Your task to perform on an android device: uninstall "Google Drive" Image 0: 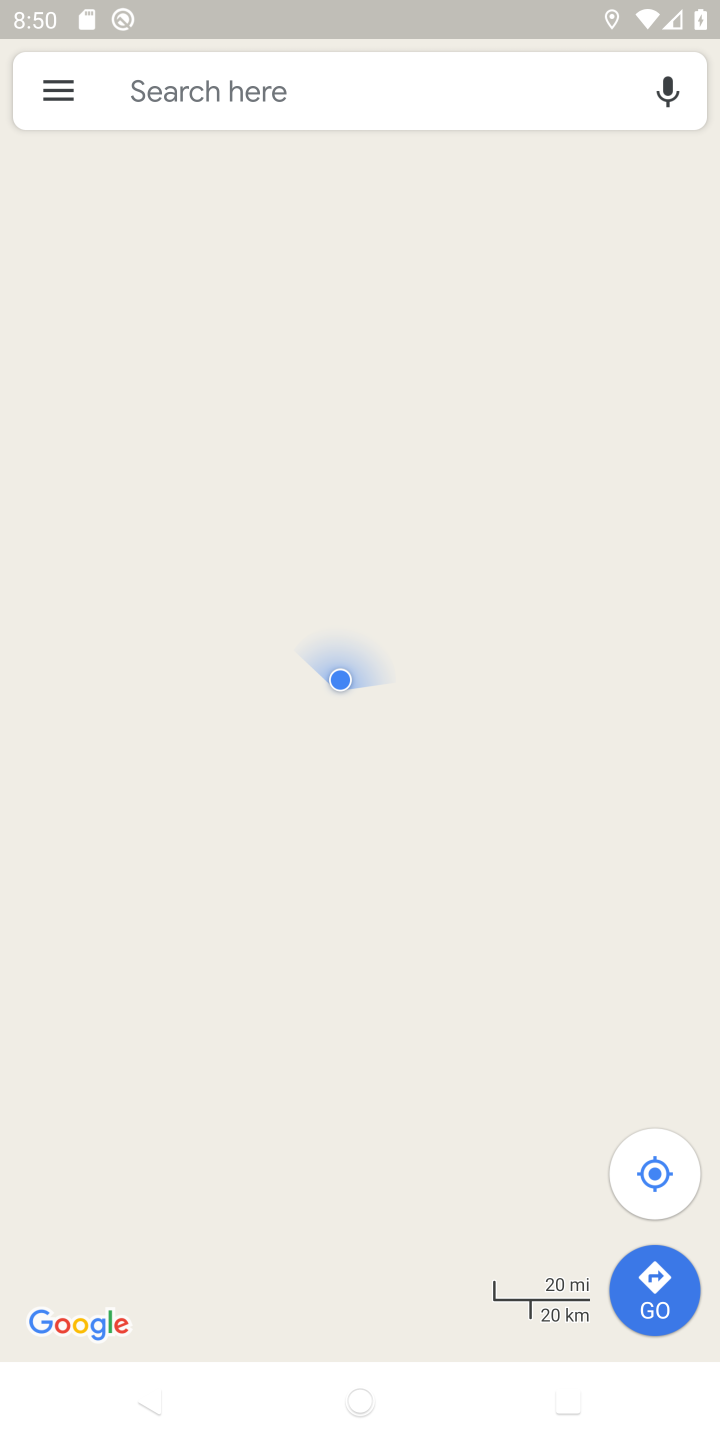
Step 0: press home button
Your task to perform on an android device: uninstall "Google Drive" Image 1: 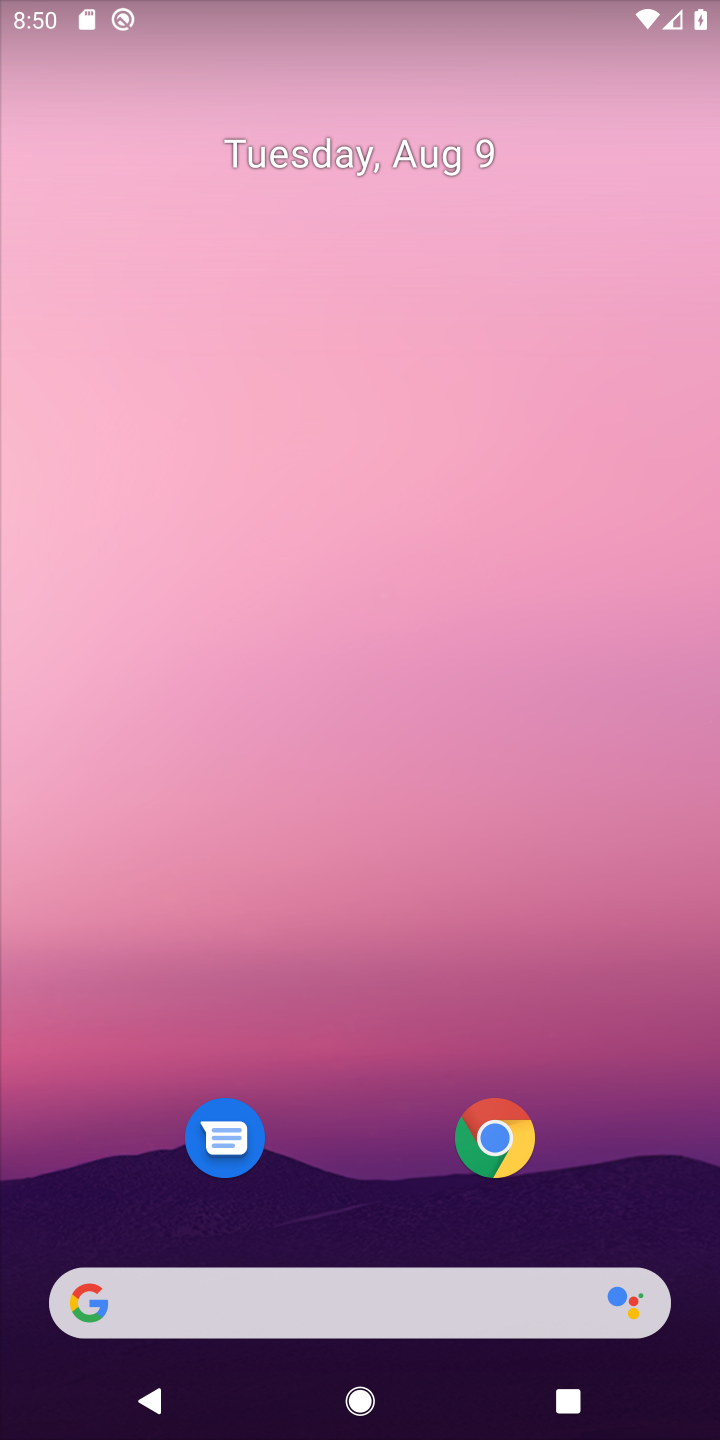
Step 1: drag from (353, 1163) to (353, 184)
Your task to perform on an android device: uninstall "Google Drive" Image 2: 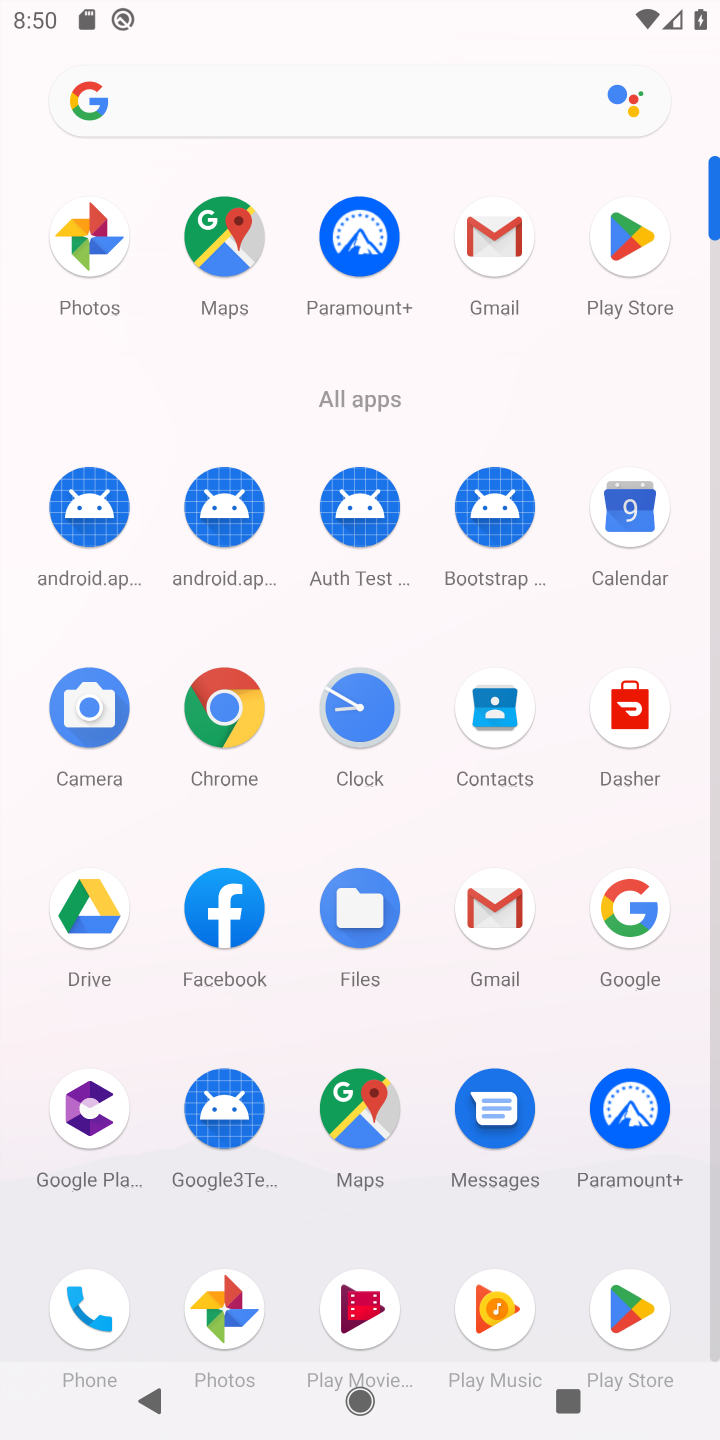
Step 2: click (620, 227)
Your task to perform on an android device: uninstall "Google Drive" Image 3: 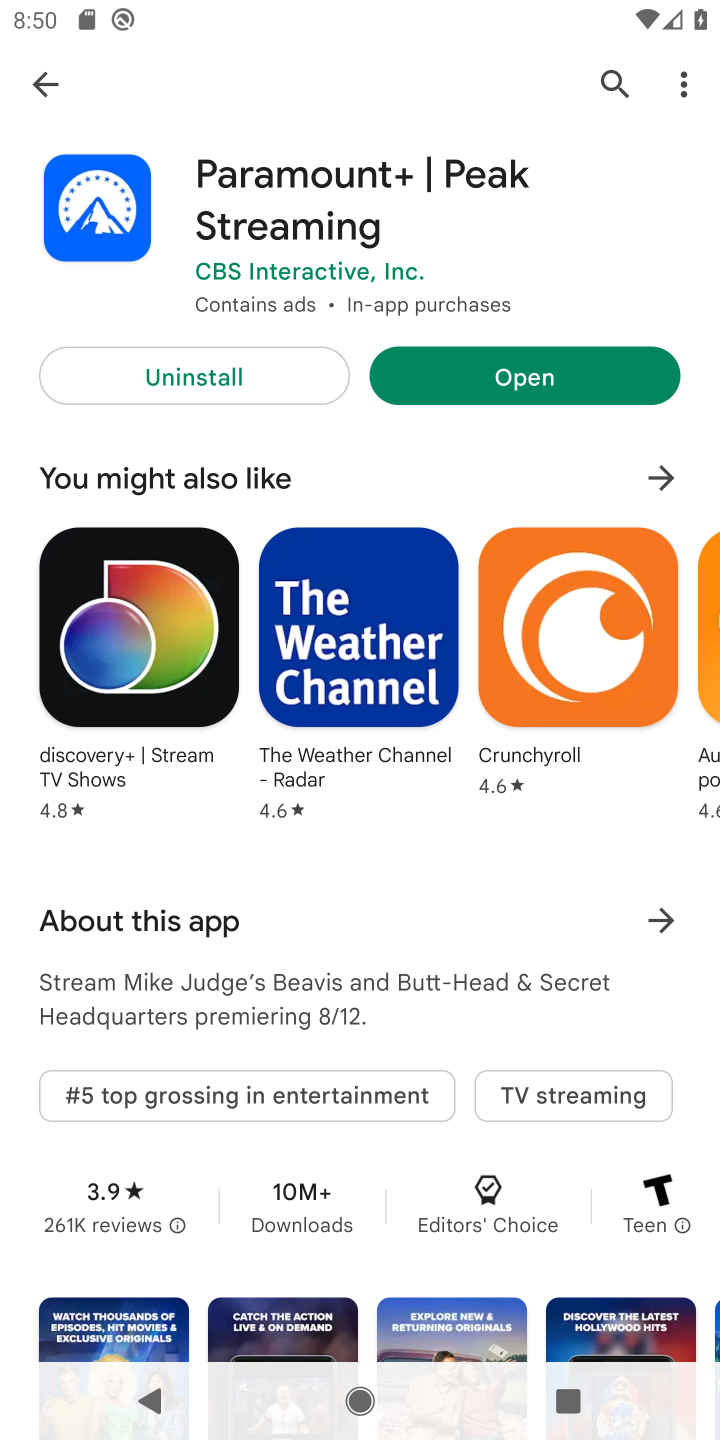
Step 3: click (608, 86)
Your task to perform on an android device: uninstall "Google Drive" Image 4: 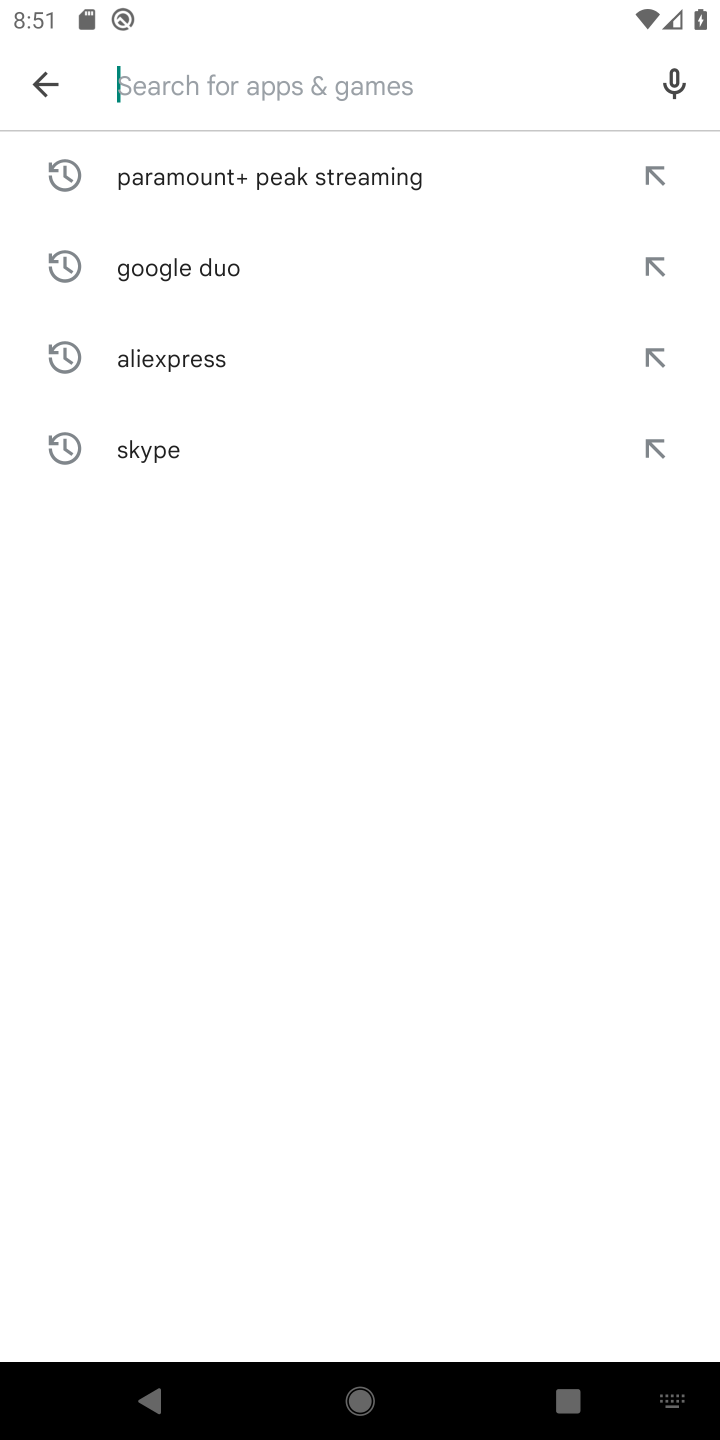
Step 4: type "Google Drive"
Your task to perform on an android device: uninstall "Google Drive" Image 5: 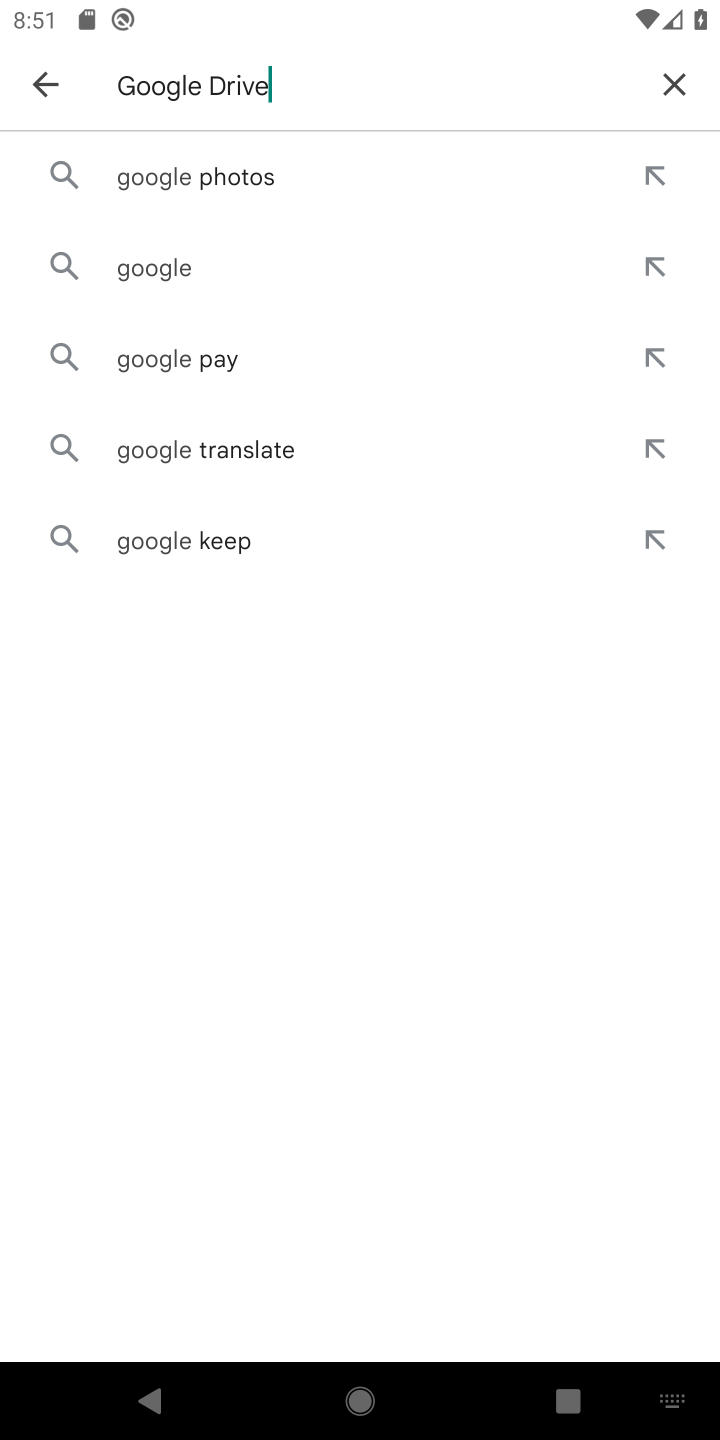
Step 5: type ""
Your task to perform on an android device: uninstall "Google Drive" Image 6: 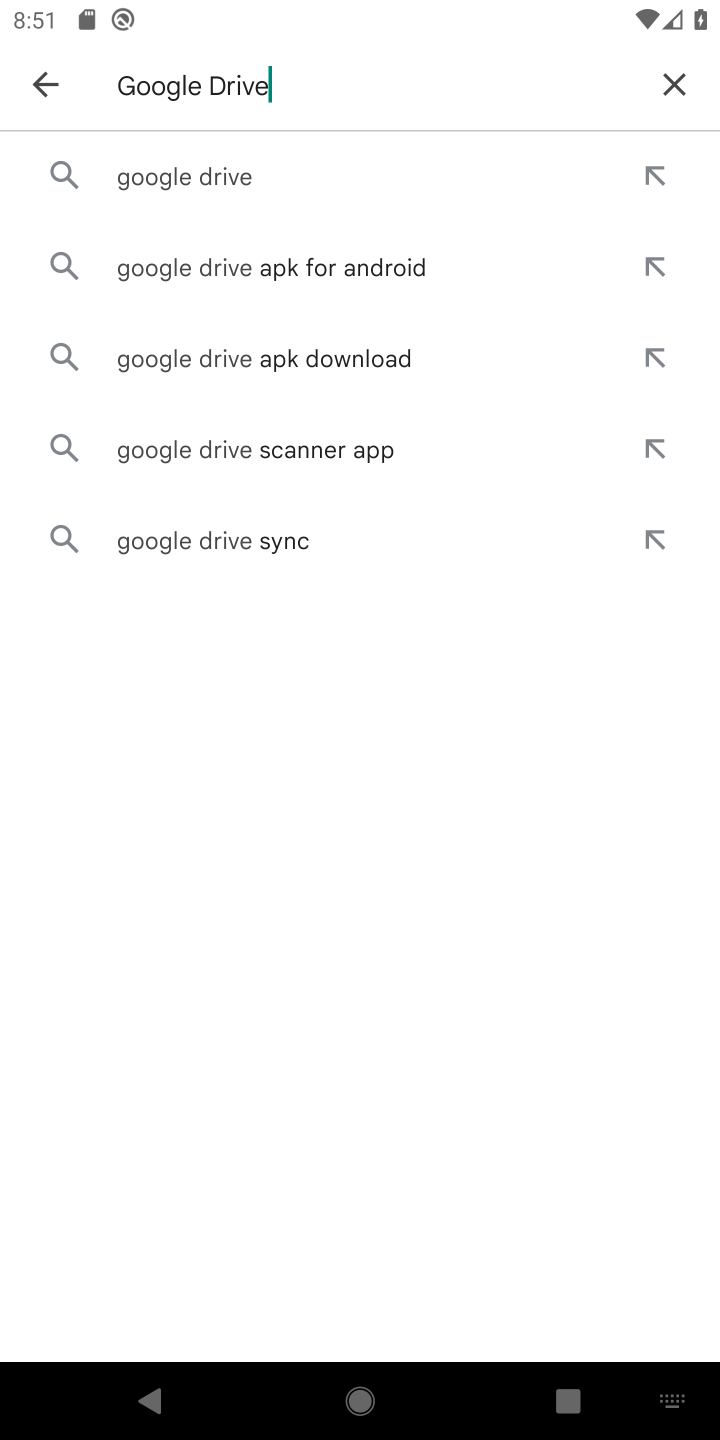
Step 6: click (329, 157)
Your task to perform on an android device: uninstall "Google Drive" Image 7: 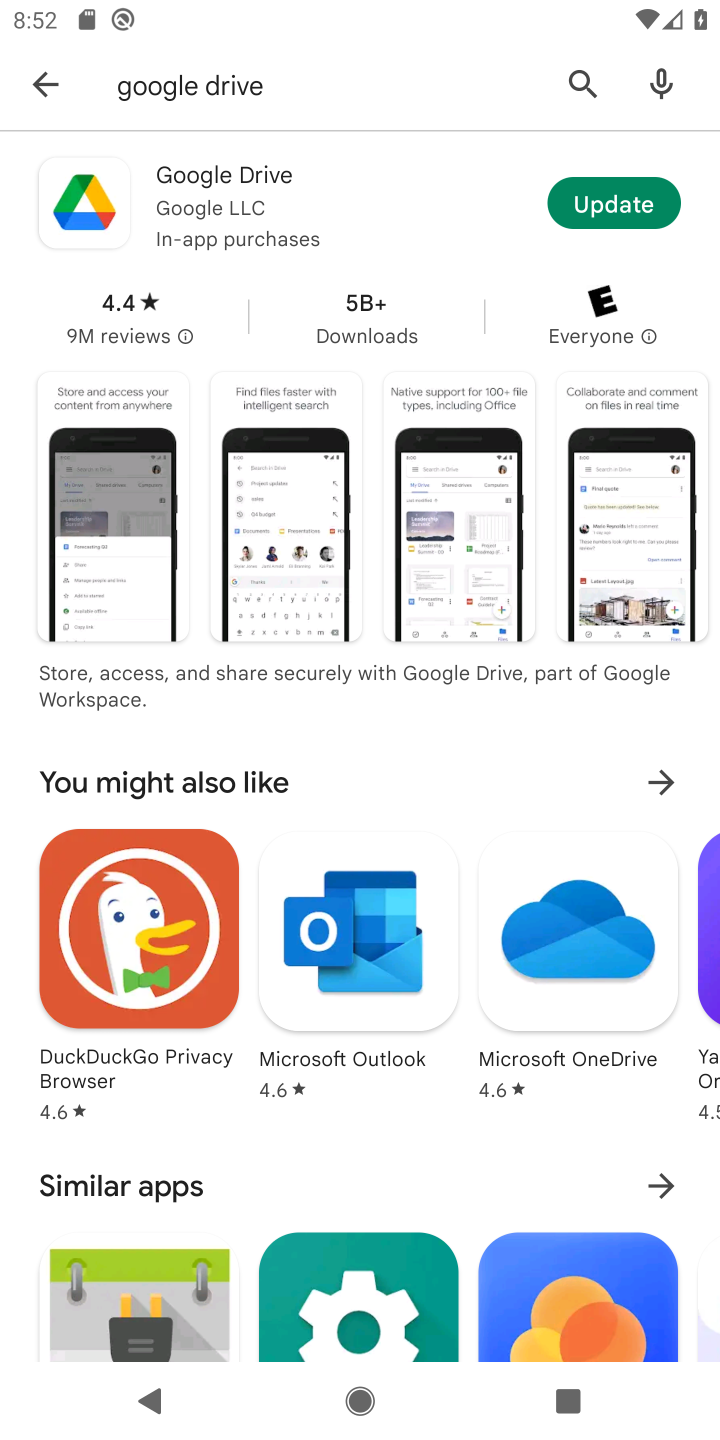
Step 7: click (412, 184)
Your task to perform on an android device: uninstall "Google Drive" Image 8: 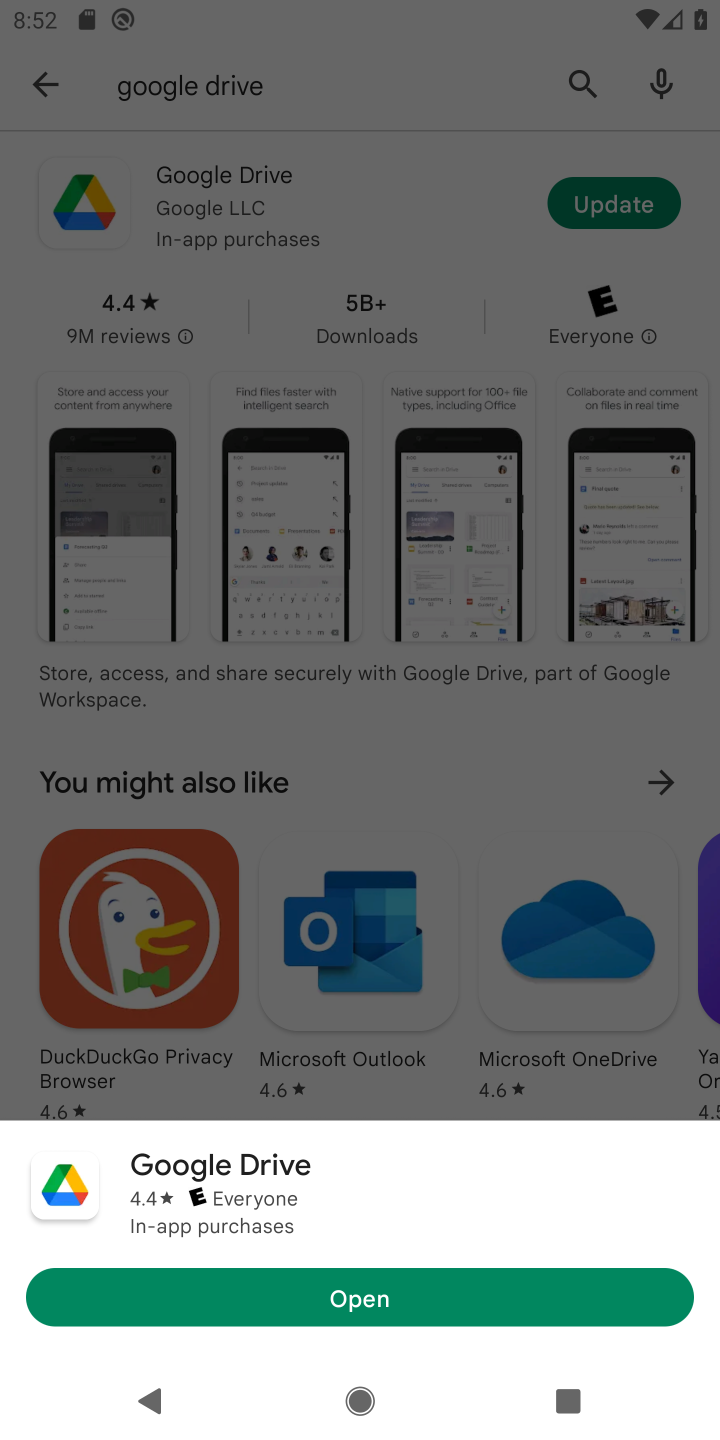
Step 8: click (236, 185)
Your task to perform on an android device: uninstall "Google Drive" Image 9: 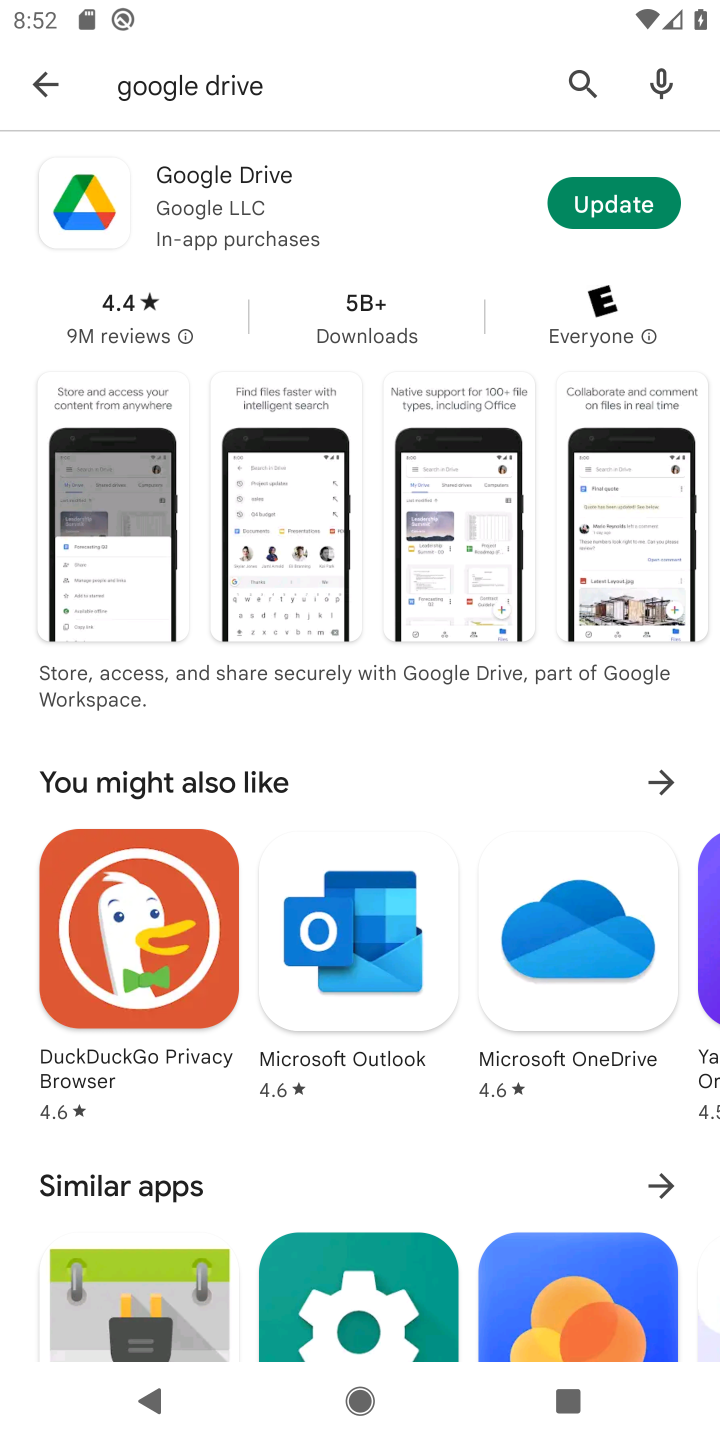
Step 9: click (234, 188)
Your task to perform on an android device: uninstall "Google Drive" Image 10: 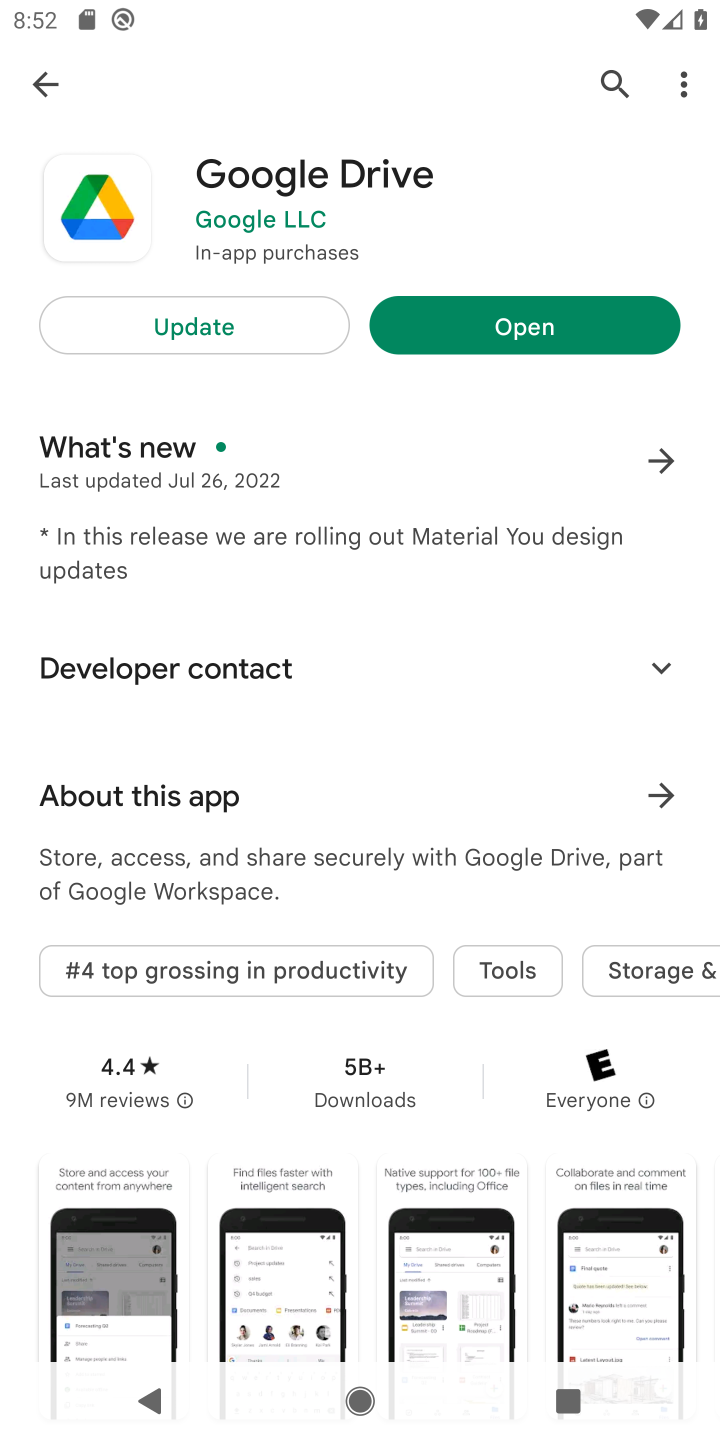
Step 10: click (199, 321)
Your task to perform on an android device: uninstall "Google Drive" Image 11: 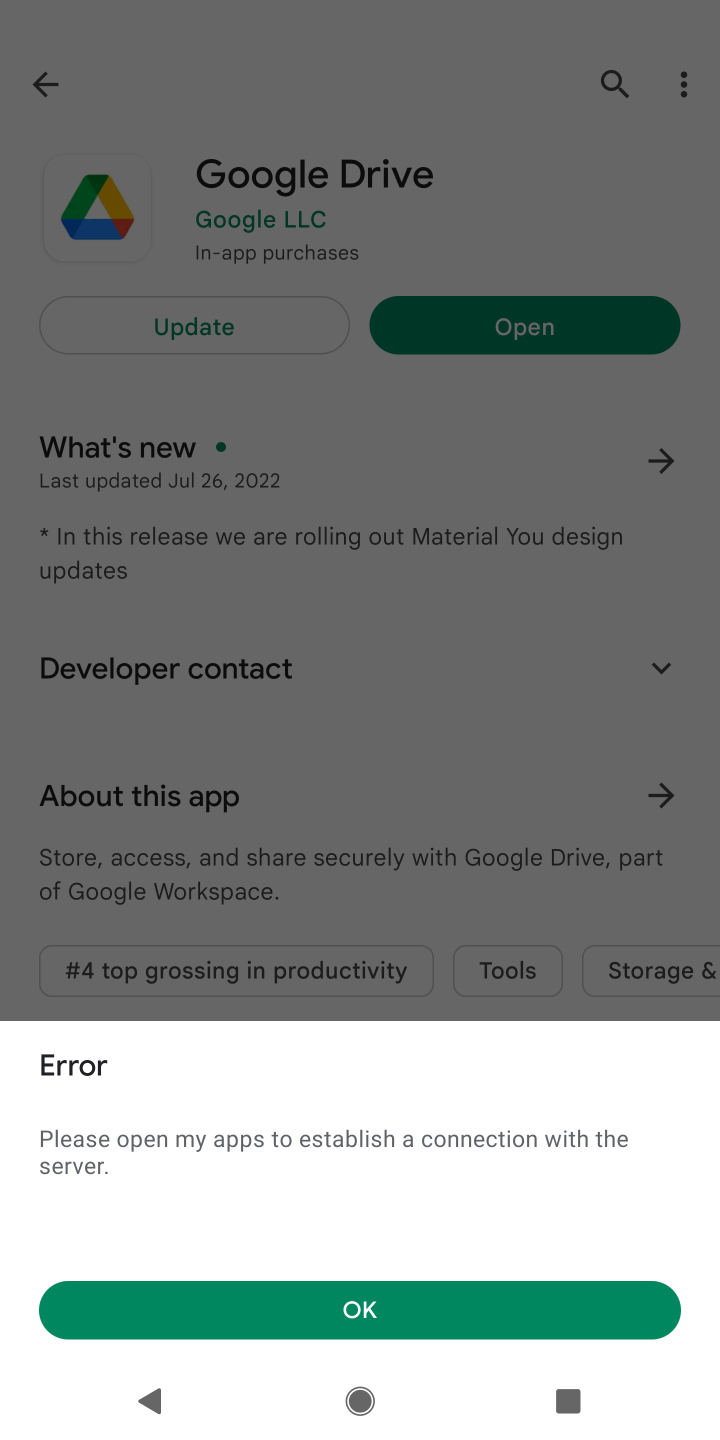
Step 11: task complete